Your task to perform on an android device: allow notifications from all sites in the chrome app Image 0: 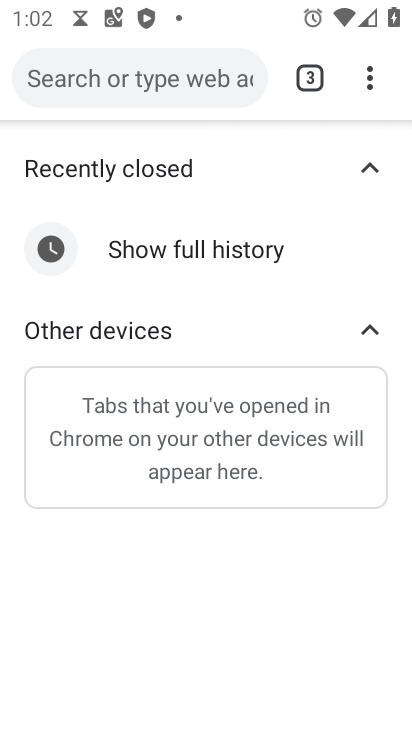
Step 0: drag from (368, 86) to (117, 620)
Your task to perform on an android device: allow notifications from all sites in the chrome app Image 1: 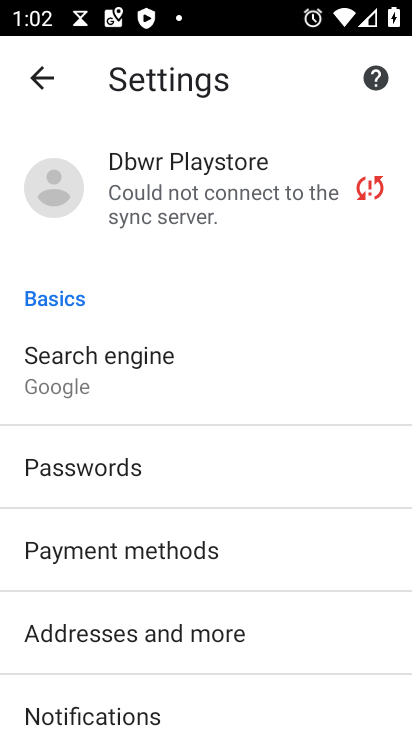
Step 1: drag from (207, 619) to (239, 188)
Your task to perform on an android device: allow notifications from all sites in the chrome app Image 2: 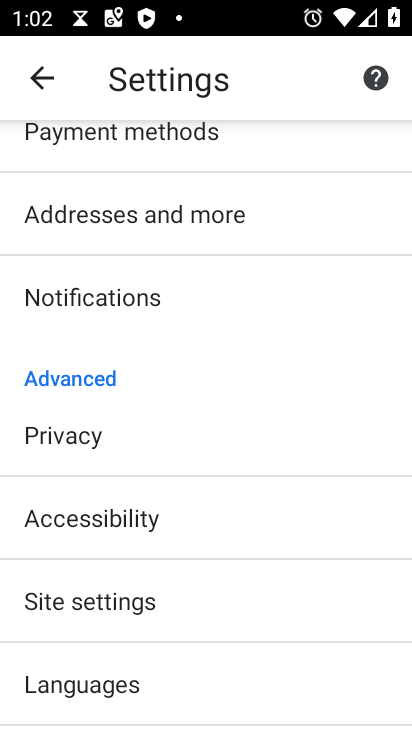
Step 2: click (125, 601)
Your task to perform on an android device: allow notifications from all sites in the chrome app Image 3: 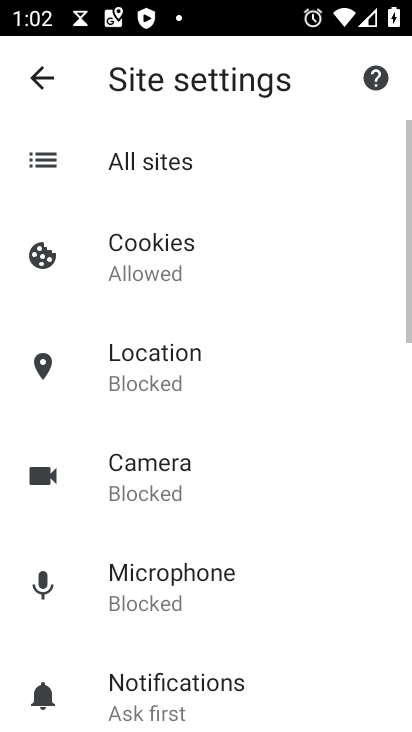
Step 3: drag from (213, 691) to (273, 151)
Your task to perform on an android device: allow notifications from all sites in the chrome app Image 4: 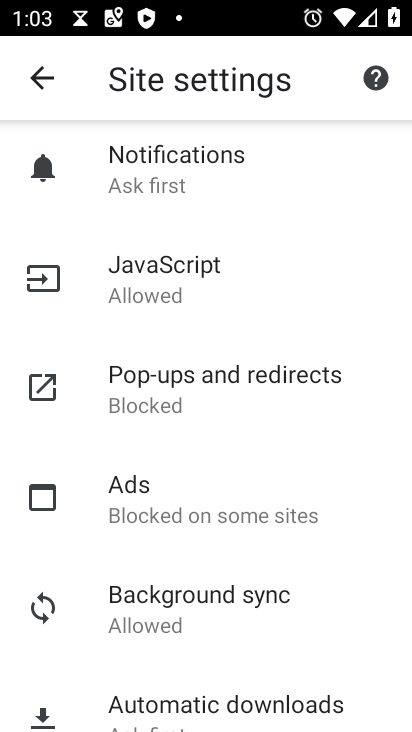
Step 4: drag from (200, 406) to (229, 730)
Your task to perform on an android device: allow notifications from all sites in the chrome app Image 5: 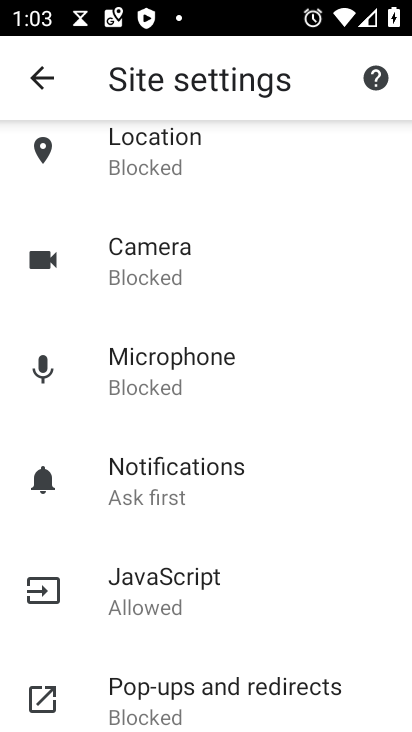
Step 5: drag from (186, 630) to (238, 115)
Your task to perform on an android device: allow notifications from all sites in the chrome app Image 6: 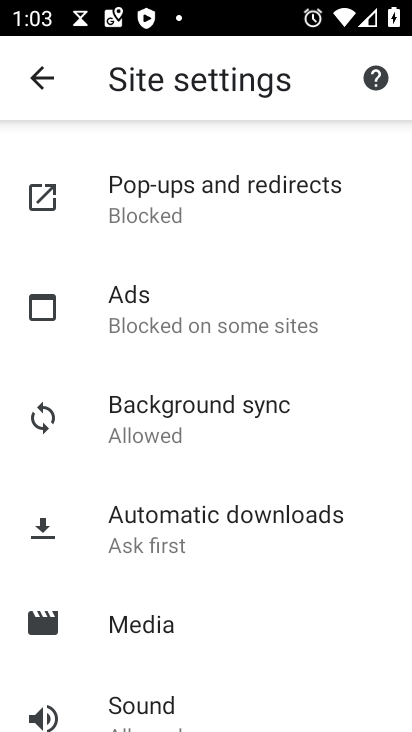
Step 6: drag from (238, 115) to (350, 646)
Your task to perform on an android device: allow notifications from all sites in the chrome app Image 7: 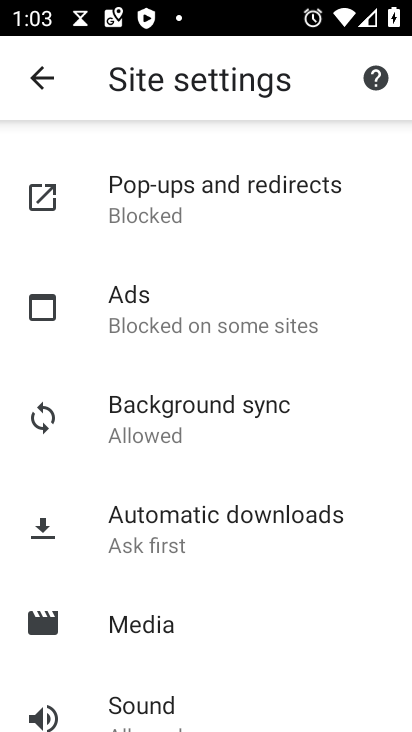
Step 7: drag from (204, 272) to (248, 650)
Your task to perform on an android device: allow notifications from all sites in the chrome app Image 8: 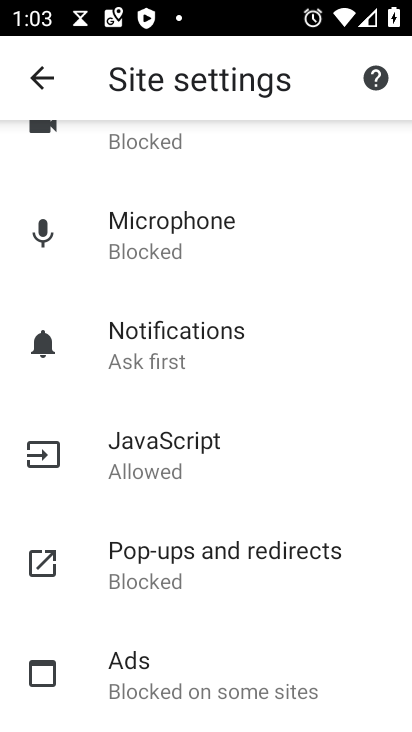
Step 8: click (134, 350)
Your task to perform on an android device: allow notifications from all sites in the chrome app Image 9: 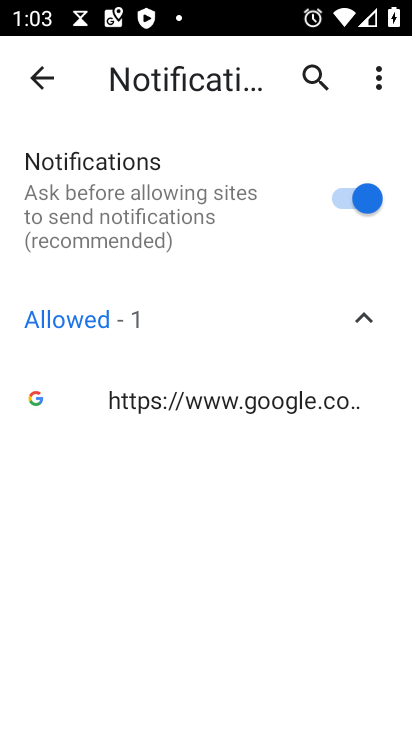
Step 9: task complete